Your task to perform on an android device: Open settings on Google Maps Image 0: 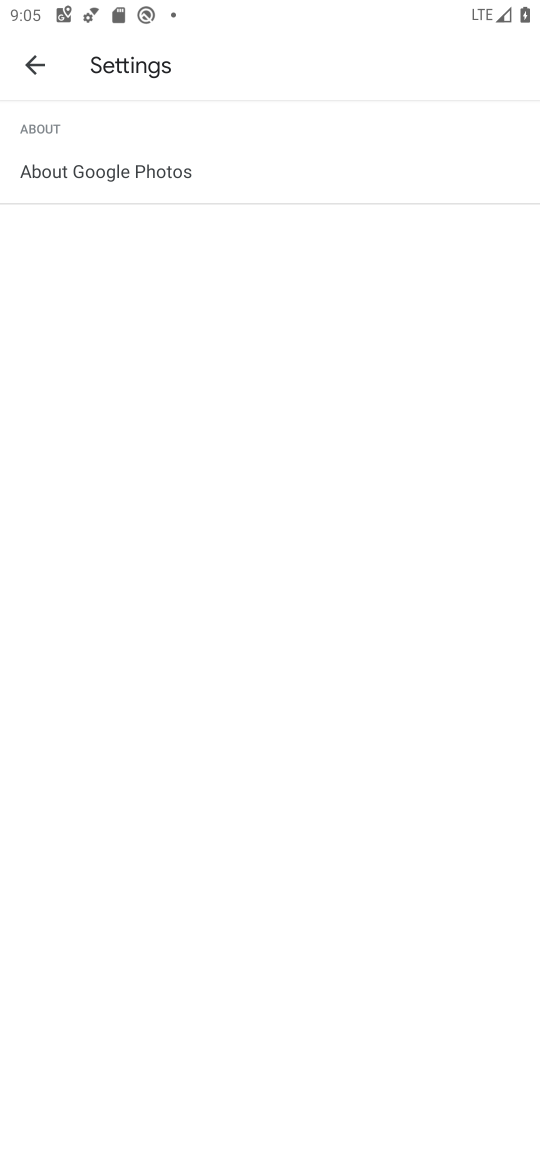
Step 0: press home button
Your task to perform on an android device: Open settings on Google Maps Image 1: 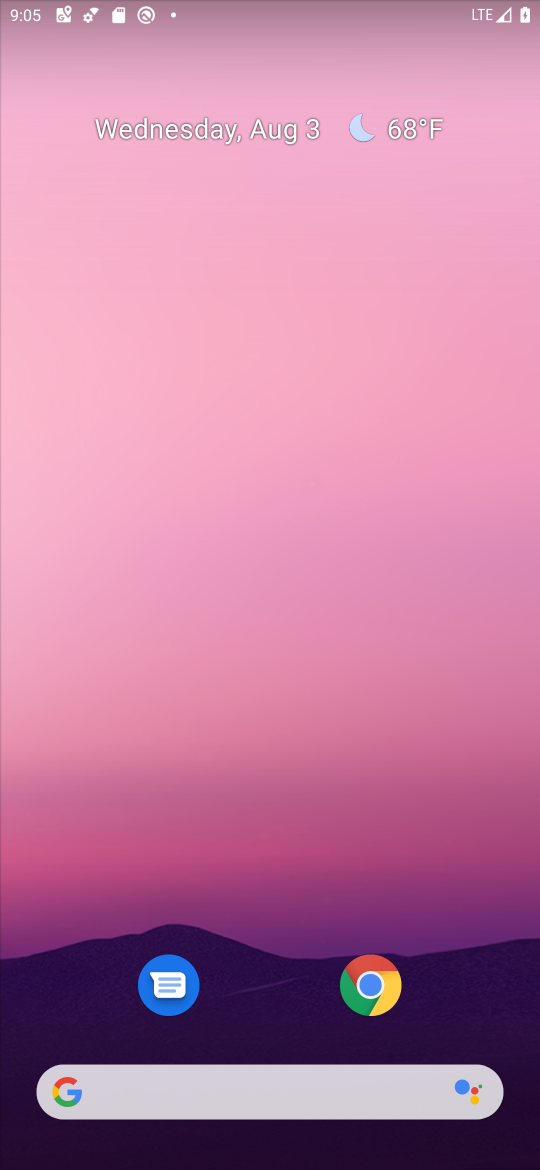
Step 1: drag from (254, 737) to (254, 326)
Your task to perform on an android device: Open settings on Google Maps Image 2: 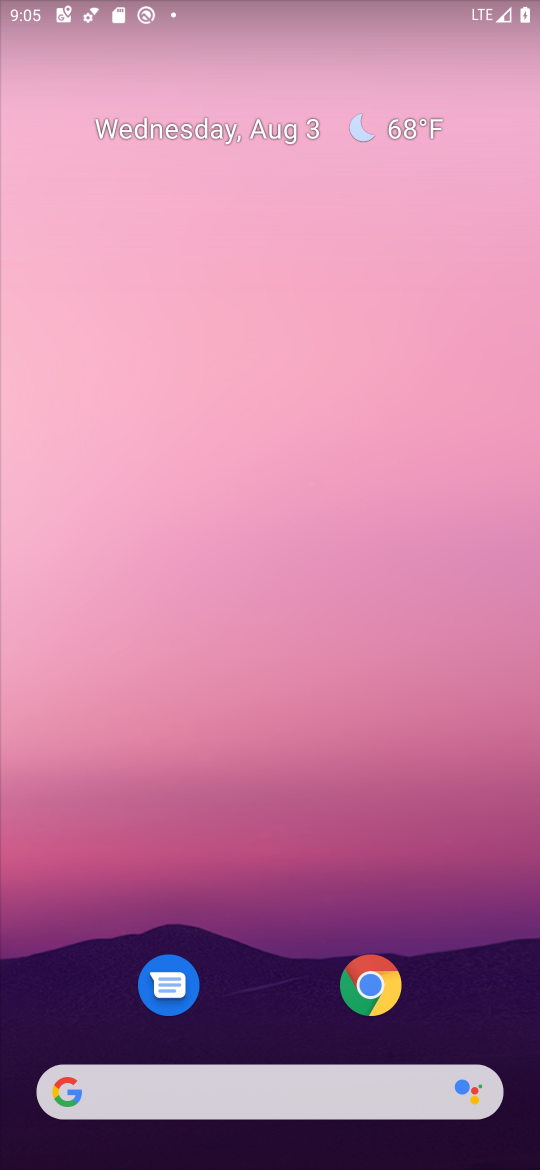
Step 2: drag from (265, 1017) to (270, 185)
Your task to perform on an android device: Open settings on Google Maps Image 3: 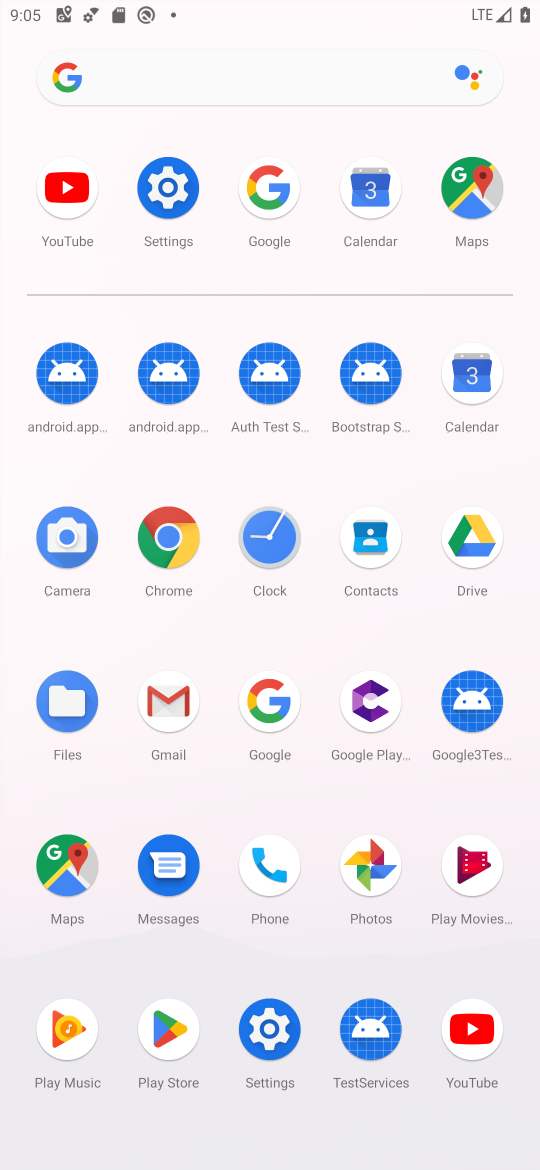
Step 3: click (437, 185)
Your task to perform on an android device: Open settings on Google Maps Image 4: 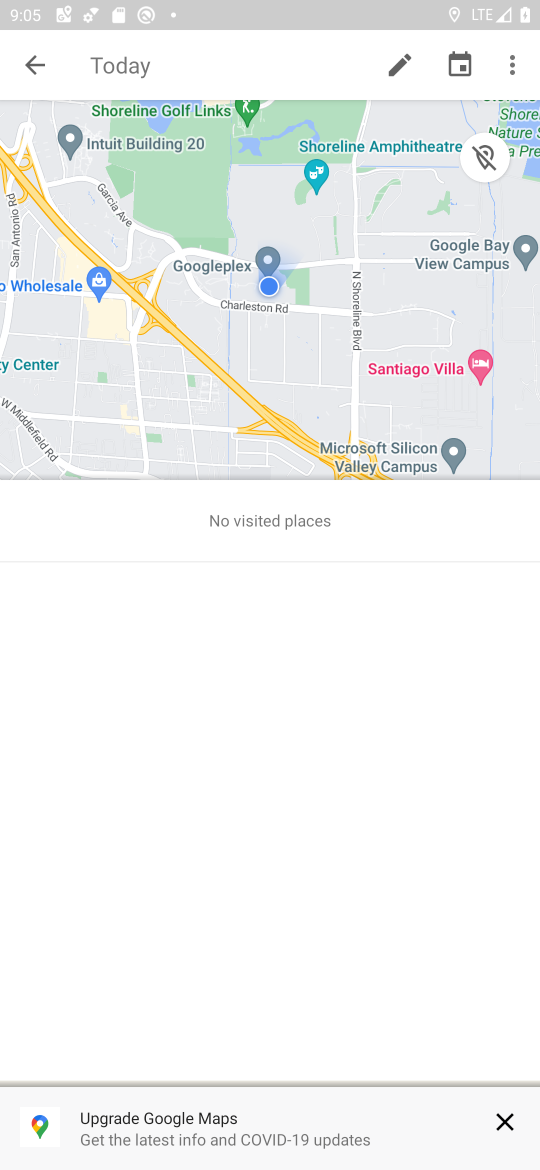
Step 4: click (34, 66)
Your task to perform on an android device: Open settings on Google Maps Image 5: 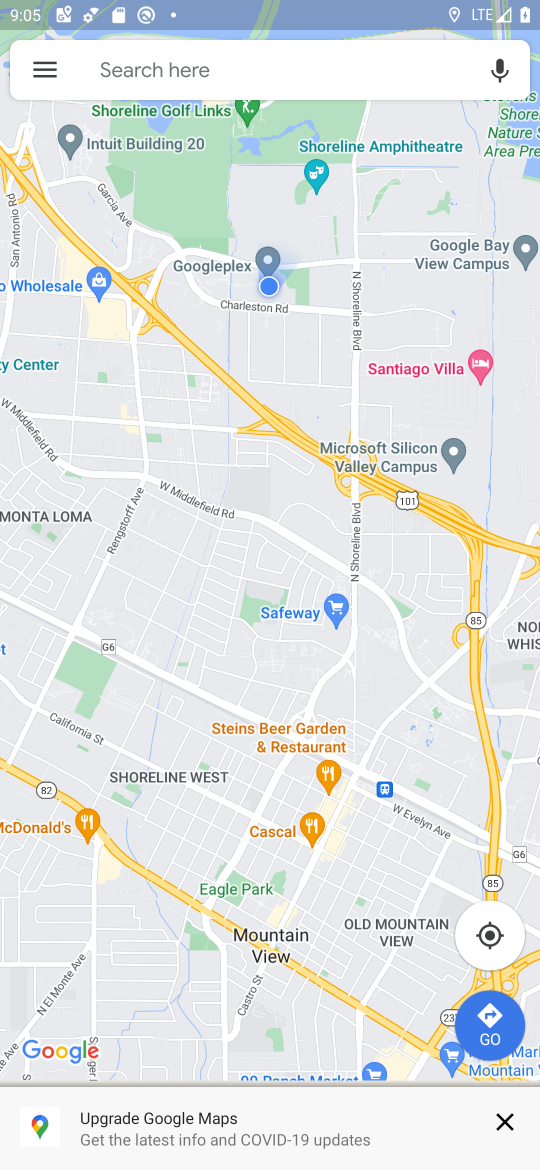
Step 5: click (32, 68)
Your task to perform on an android device: Open settings on Google Maps Image 6: 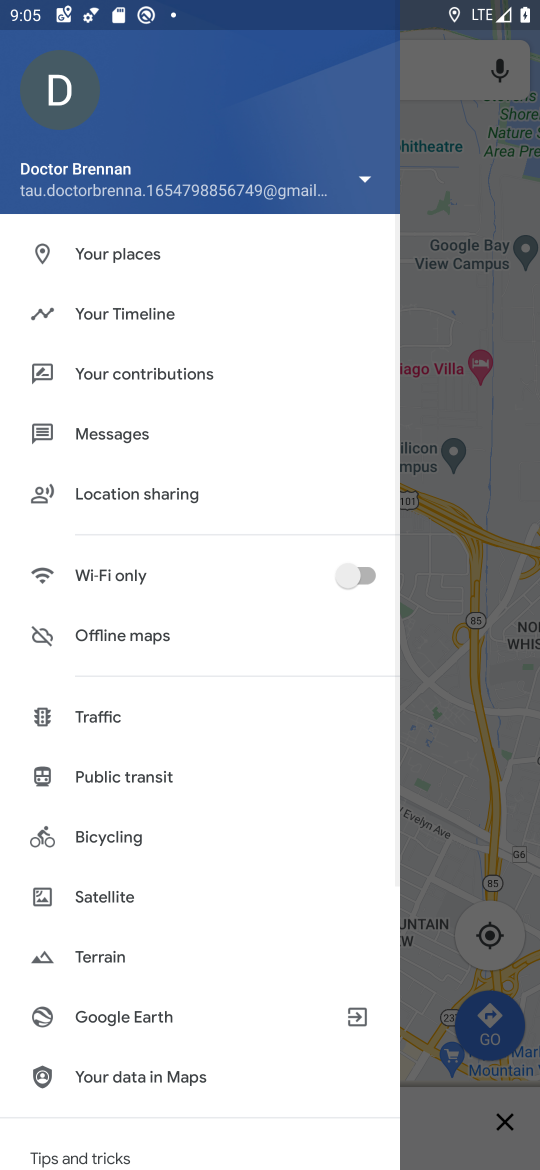
Step 6: drag from (165, 1021) to (215, 380)
Your task to perform on an android device: Open settings on Google Maps Image 7: 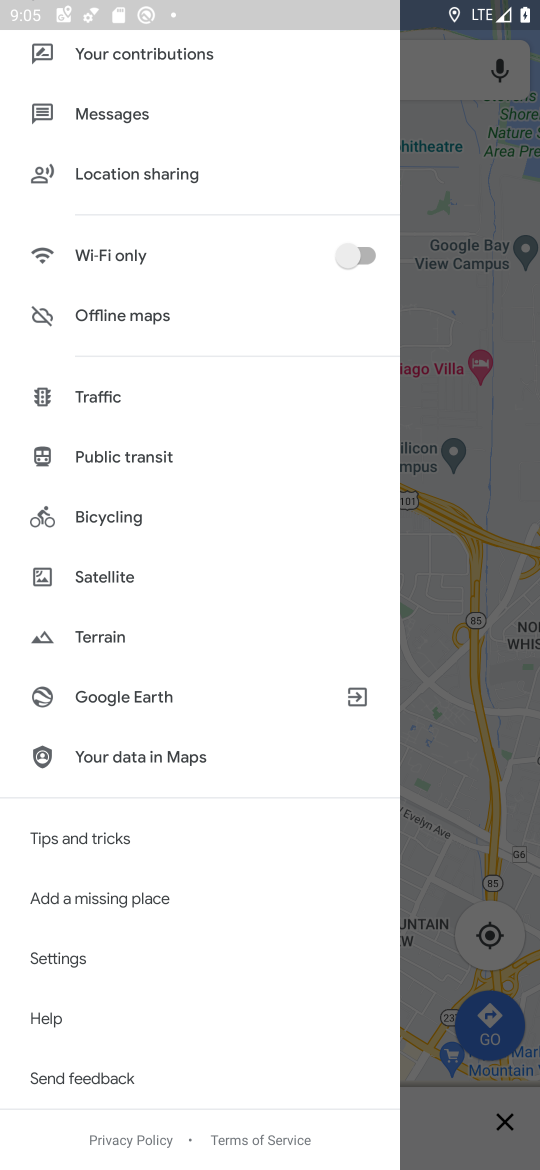
Step 7: click (122, 967)
Your task to perform on an android device: Open settings on Google Maps Image 8: 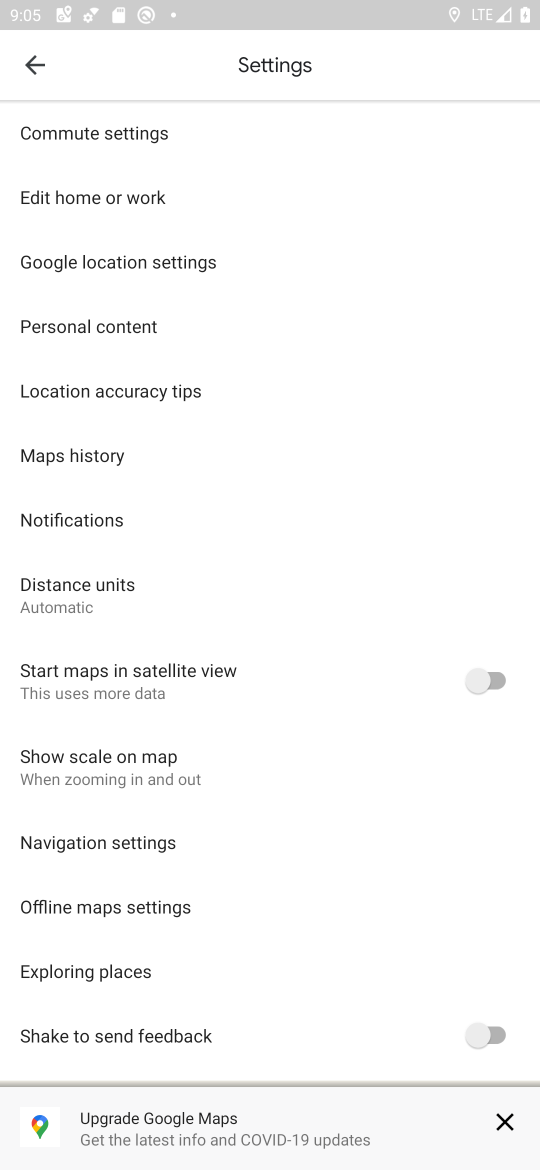
Step 8: task complete